Your task to perform on an android device: toggle location history Image 0: 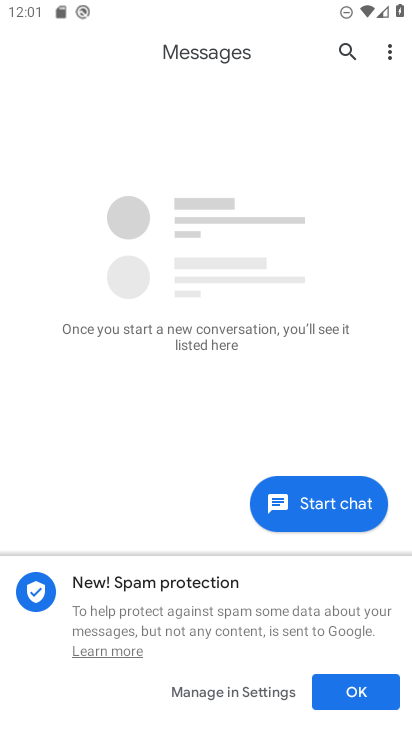
Step 0: press home button
Your task to perform on an android device: toggle location history Image 1: 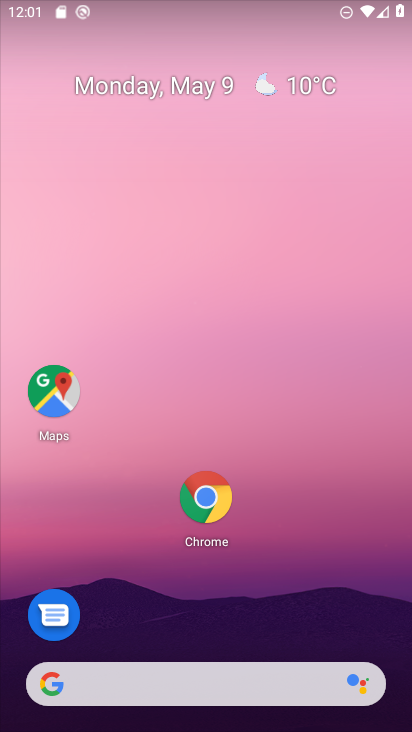
Step 1: drag from (322, 561) to (273, 0)
Your task to perform on an android device: toggle location history Image 2: 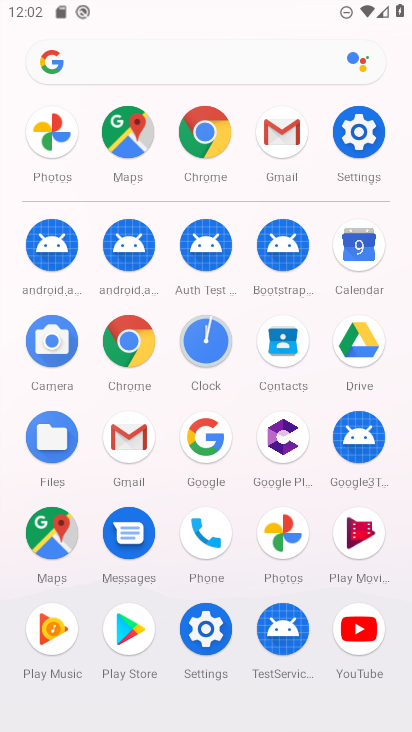
Step 2: click (352, 105)
Your task to perform on an android device: toggle location history Image 3: 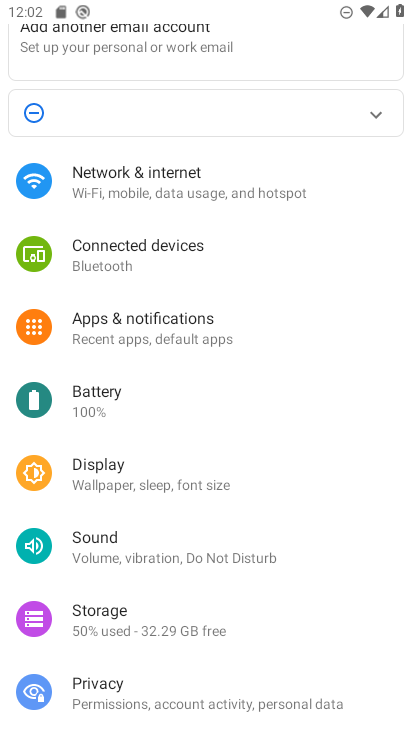
Step 3: drag from (215, 631) to (260, 221)
Your task to perform on an android device: toggle location history Image 4: 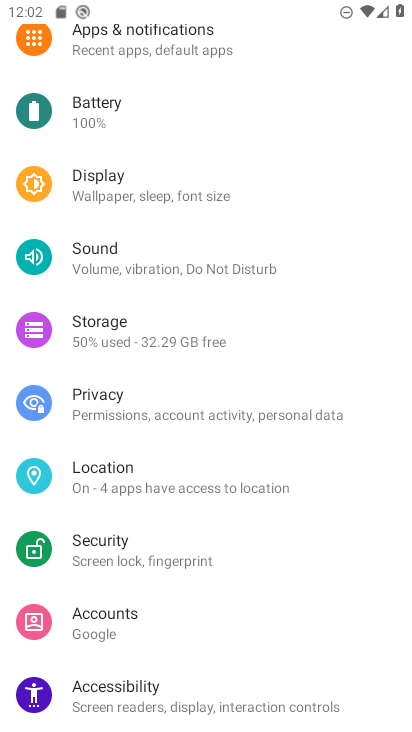
Step 4: click (122, 460)
Your task to perform on an android device: toggle location history Image 5: 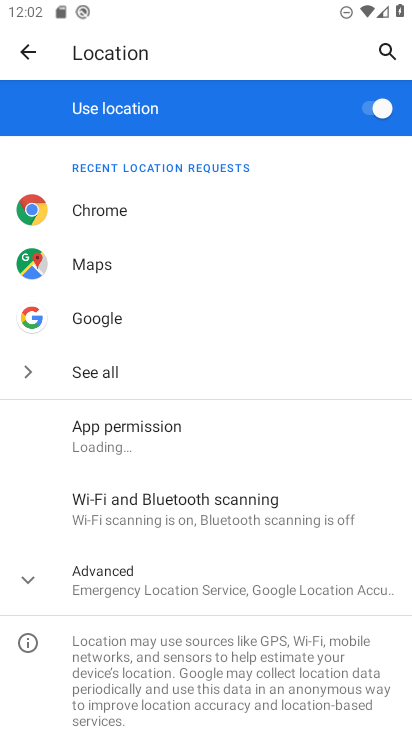
Step 5: click (160, 568)
Your task to perform on an android device: toggle location history Image 6: 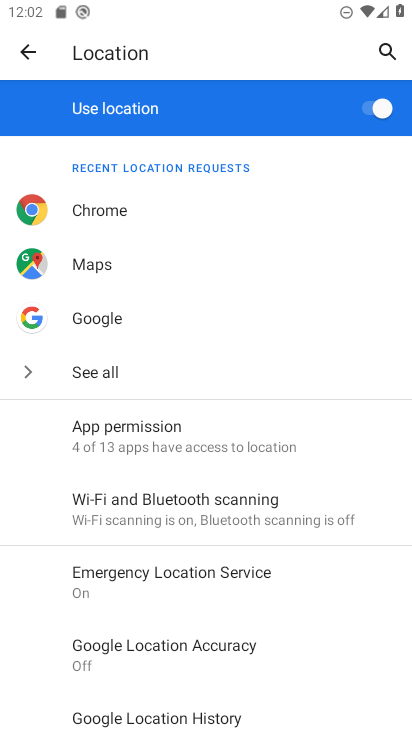
Step 6: drag from (262, 637) to (299, 289)
Your task to perform on an android device: toggle location history Image 7: 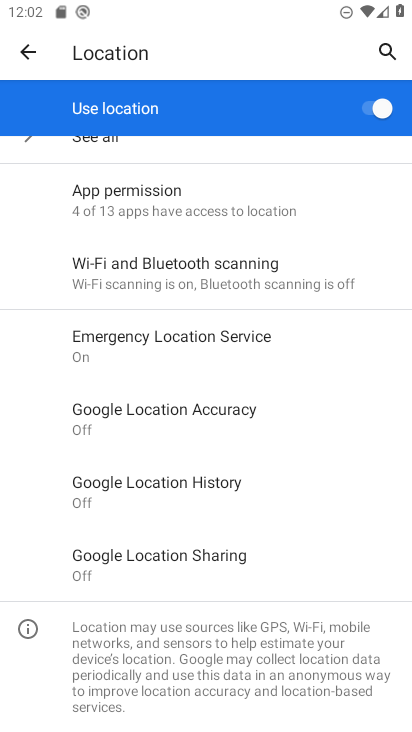
Step 7: click (230, 480)
Your task to perform on an android device: toggle location history Image 8: 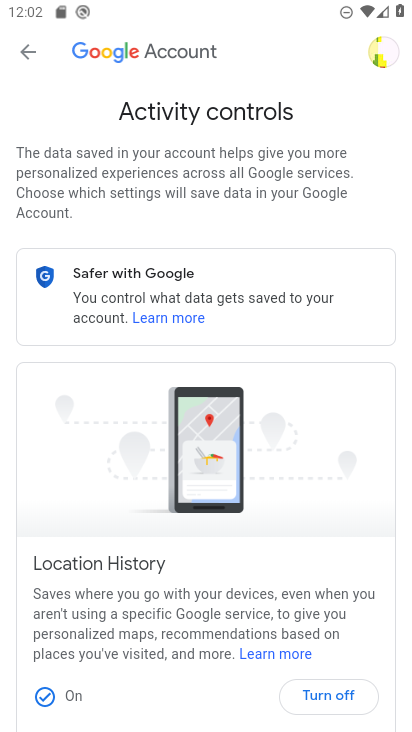
Step 8: click (342, 702)
Your task to perform on an android device: toggle location history Image 9: 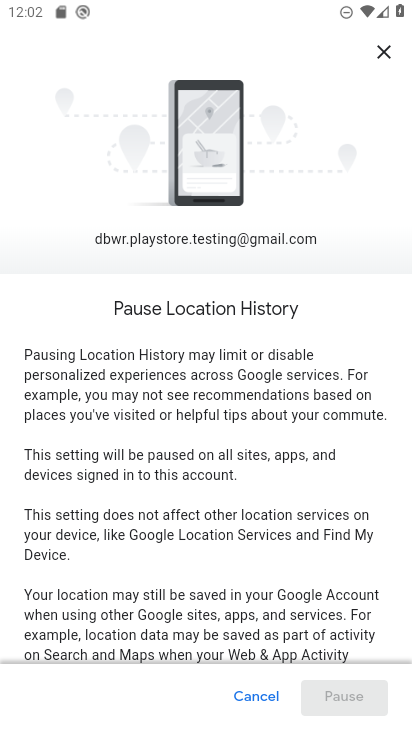
Step 9: drag from (280, 572) to (295, 24)
Your task to perform on an android device: toggle location history Image 10: 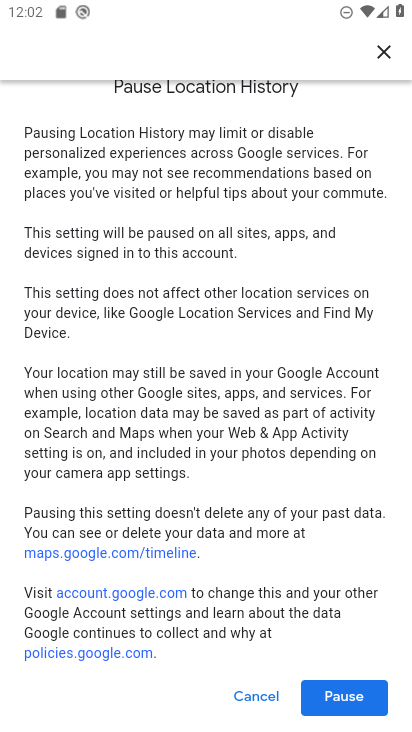
Step 10: click (343, 691)
Your task to perform on an android device: toggle location history Image 11: 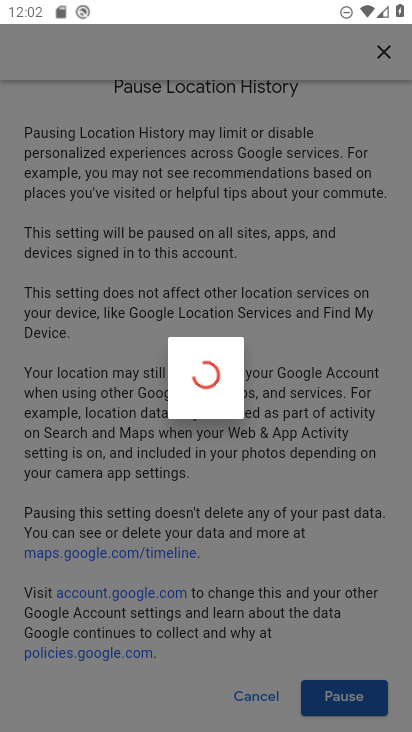
Step 11: click (331, 678)
Your task to perform on an android device: toggle location history Image 12: 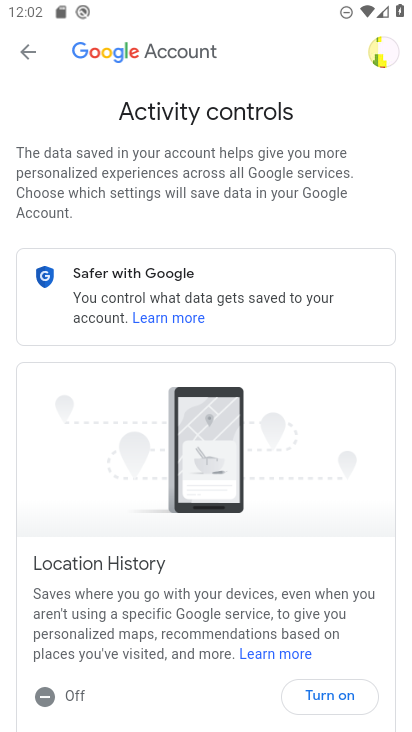
Step 12: task complete